Your task to perform on an android device: Turn on the flashlight Image 0: 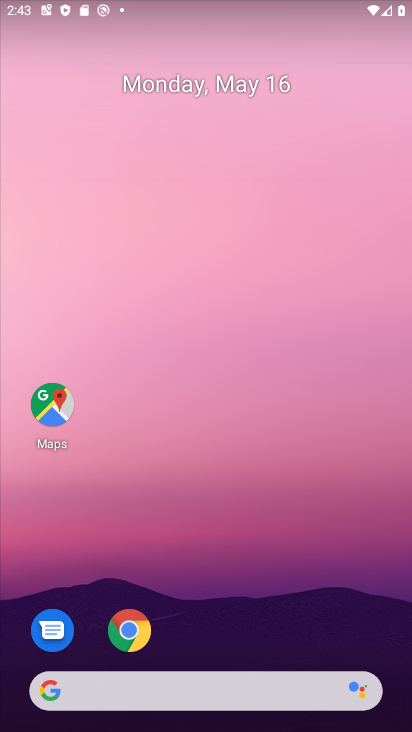
Step 0: drag from (219, 603) to (233, 68)
Your task to perform on an android device: Turn on the flashlight Image 1: 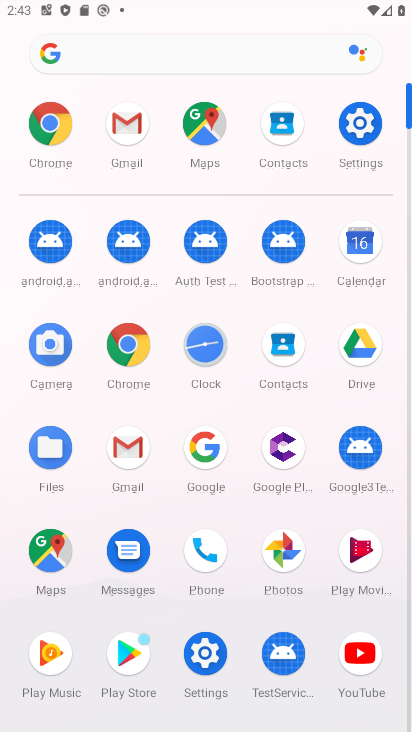
Step 1: click (359, 119)
Your task to perform on an android device: Turn on the flashlight Image 2: 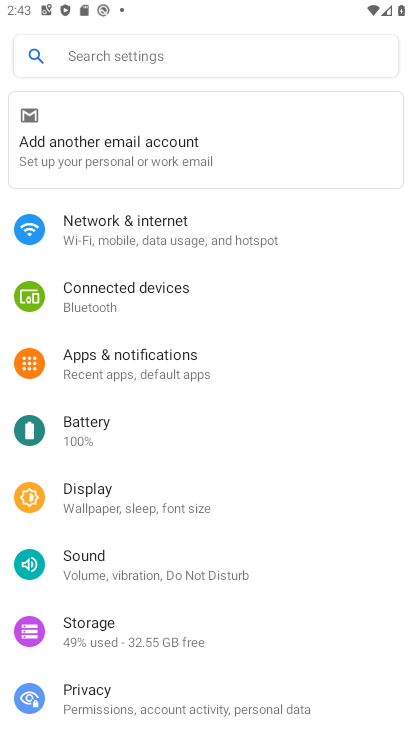
Step 2: click (97, 57)
Your task to perform on an android device: Turn on the flashlight Image 3: 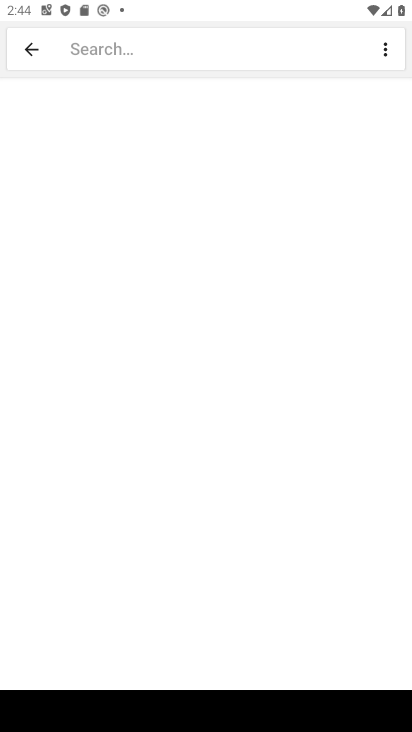
Step 3: type "flashlight"
Your task to perform on an android device: Turn on the flashlight Image 4: 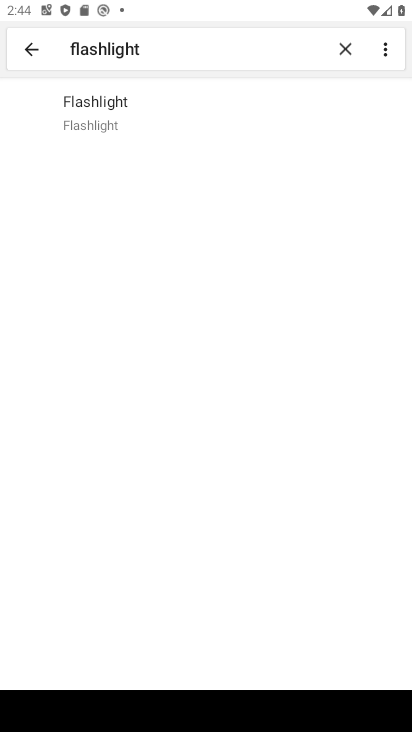
Step 4: click (103, 108)
Your task to perform on an android device: Turn on the flashlight Image 5: 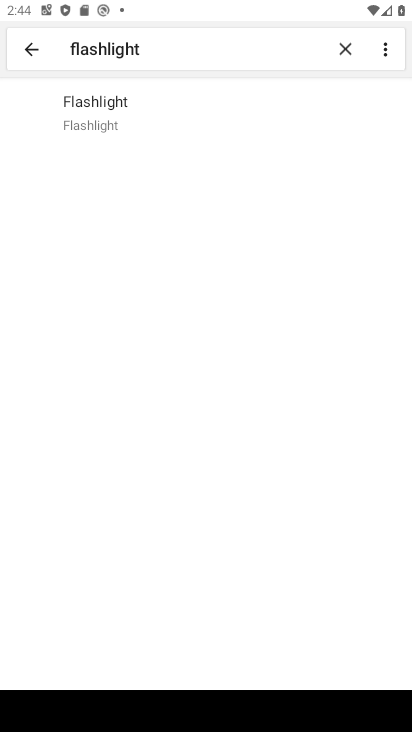
Step 5: task complete